Your task to perform on an android device: Open Chrome and go to settings Image 0: 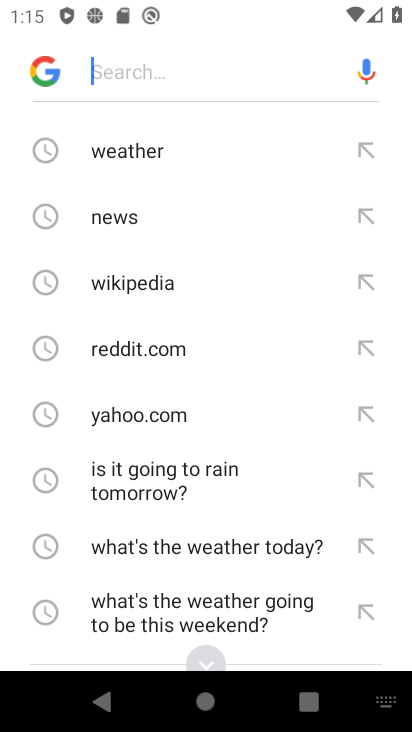
Step 0: press home button
Your task to perform on an android device: Open Chrome and go to settings Image 1: 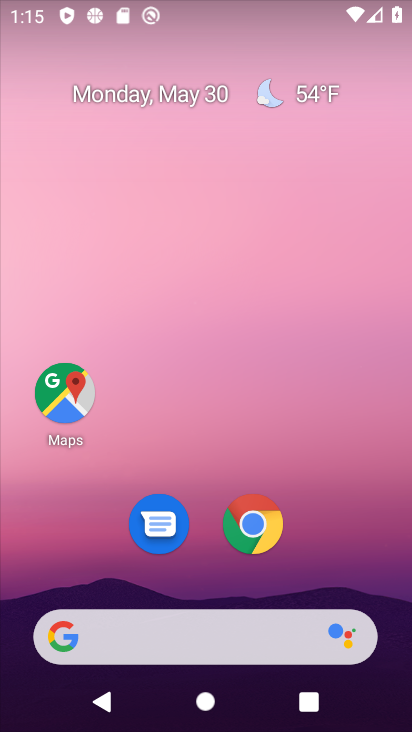
Step 1: click (262, 531)
Your task to perform on an android device: Open Chrome and go to settings Image 2: 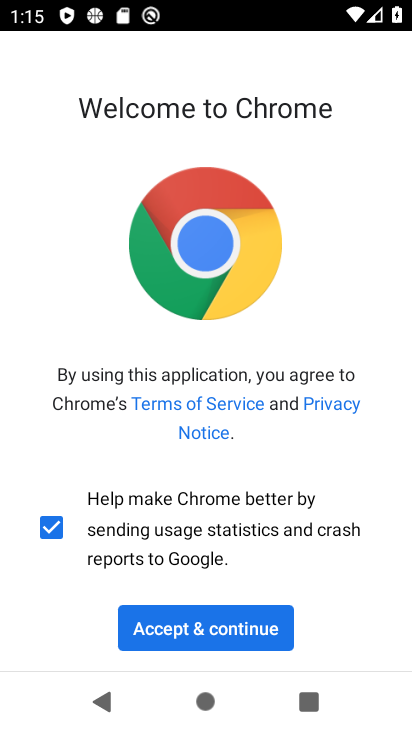
Step 2: click (271, 615)
Your task to perform on an android device: Open Chrome and go to settings Image 3: 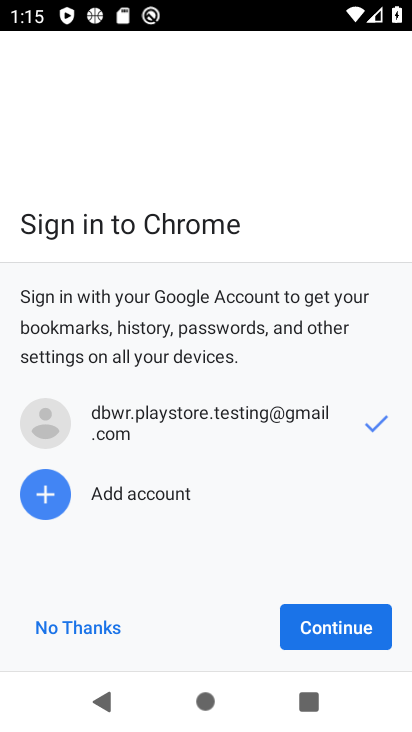
Step 3: click (319, 631)
Your task to perform on an android device: Open Chrome and go to settings Image 4: 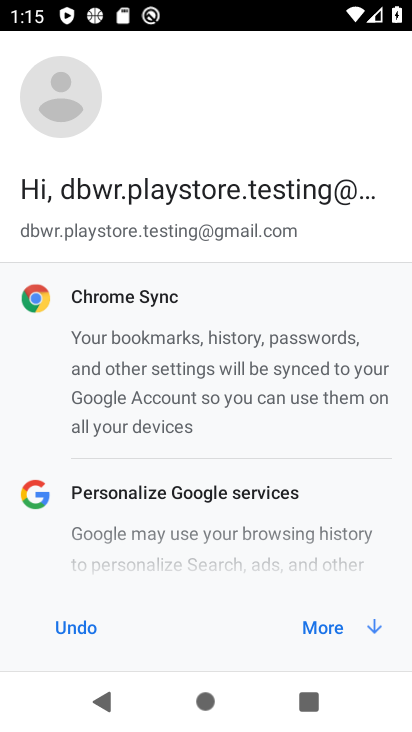
Step 4: click (319, 629)
Your task to perform on an android device: Open Chrome and go to settings Image 5: 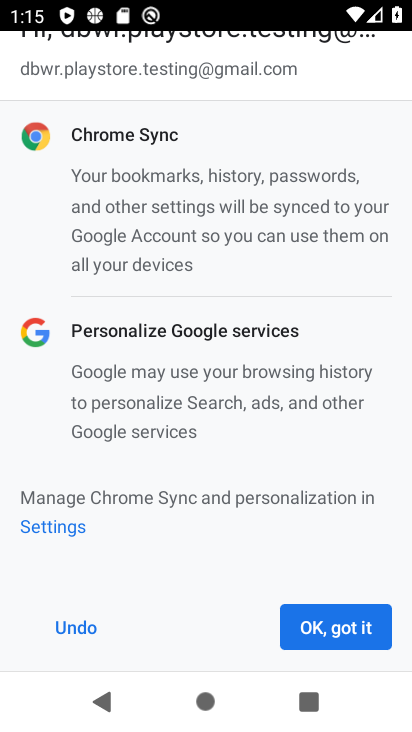
Step 5: click (319, 629)
Your task to perform on an android device: Open Chrome and go to settings Image 6: 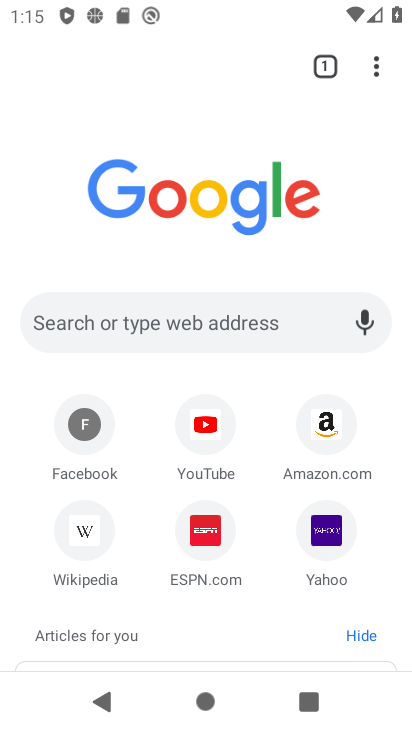
Step 6: click (375, 67)
Your task to perform on an android device: Open Chrome and go to settings Image 7: 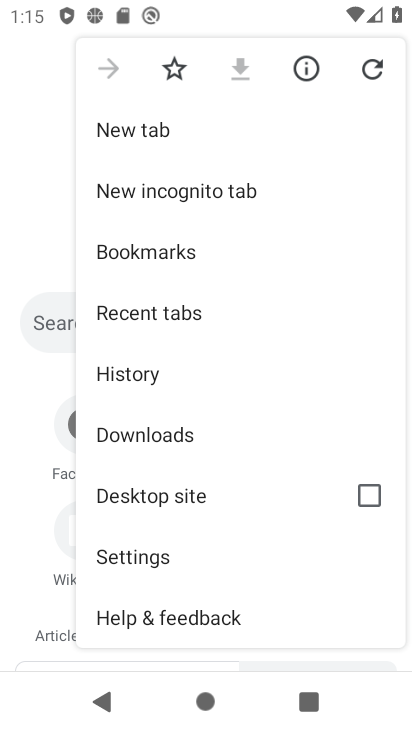
Step 7: click (231, 553)
Your task to perform on an android device: Open Chrome and go to settings Image 8: 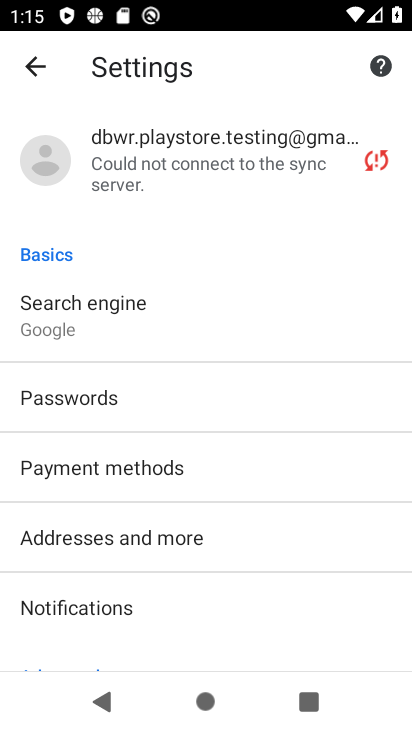
Step 8: task complete